Your task to perform on an android device: Open Google Chrome and open the bookmarks view Image 0: 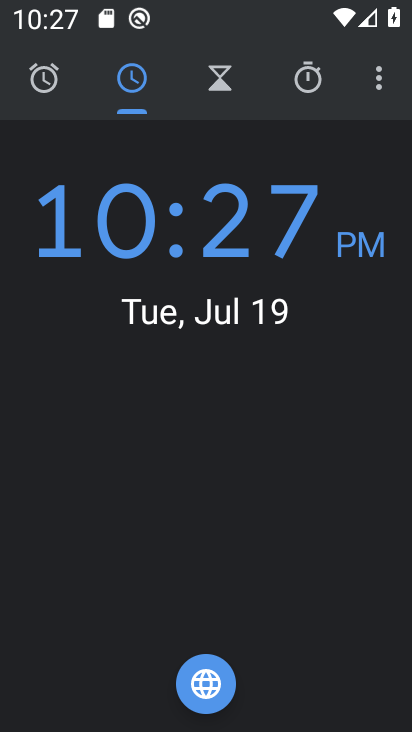
Step 0: press home button
Your task to perform on an android device: Open Google Chrome and open the bookmarks view Image 1: 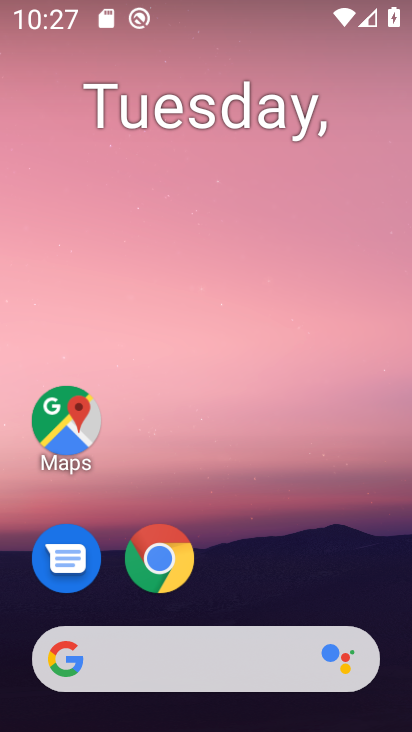
Step 1: drag from (337, 585) to (331, 113)
Your task to perform on an android device: Open Google Chrome and open the bookmarks view Image 2: 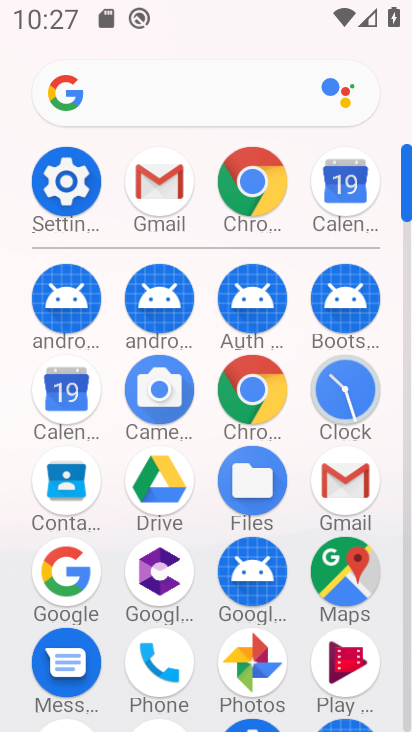
Step 2: click (256, 394)
Your task to perform on an android device: Open Google Chrome and open the bookmarks view Image 3: 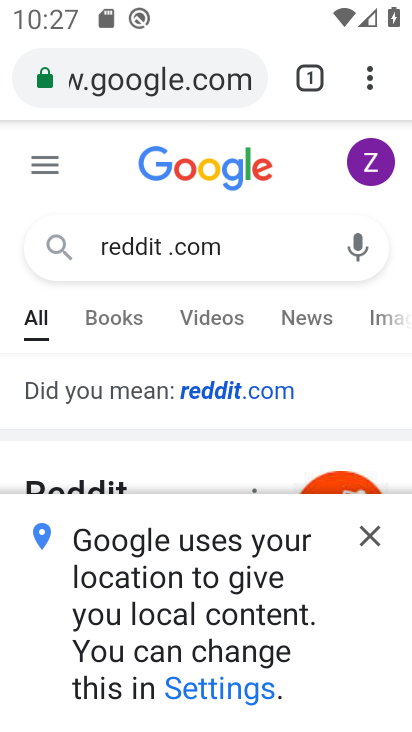
Step 3: click (371, 82)
Your task to perform on an android device: Open Google Chrome and open the bookmarks view Image 4: 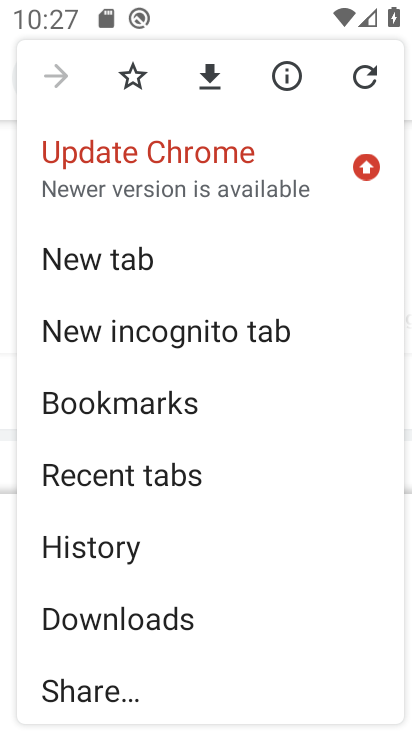
Step 4: click (188, 400)
Your task to perform on an android device: Open Google Chrome and open the bookmarks view Image 5: 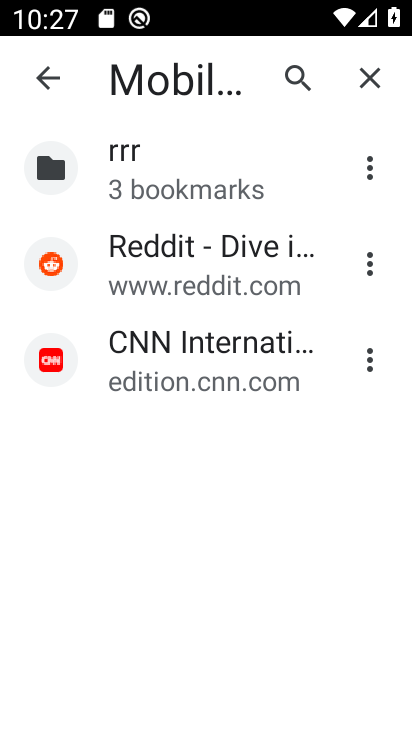
Step 5: task complete